Your task to perform on an android device: turn off improve location accuracy Image 0: 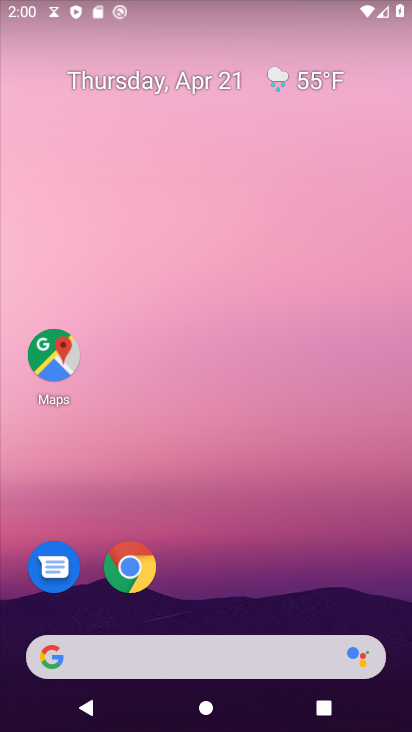
Step 0: press home button
Your task to perform on an android device: turn off improve location accuracy Image 1: 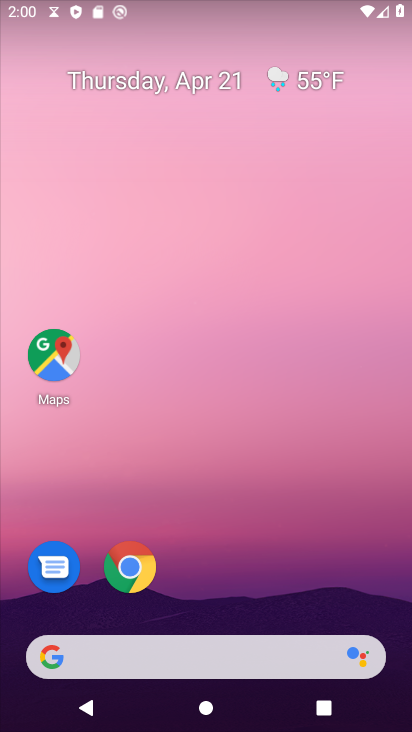
Step 1: drag from (237, 620) to (327, 261)
Your task to perform on an android device: turn off improve location accuracy Image 2: 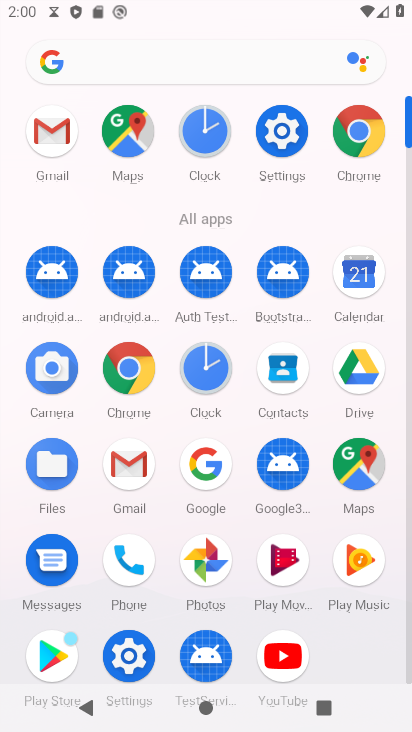
Step 2: click (279, 146)
Your task to perform on an android device: turn off improve location accuracy Image 3: 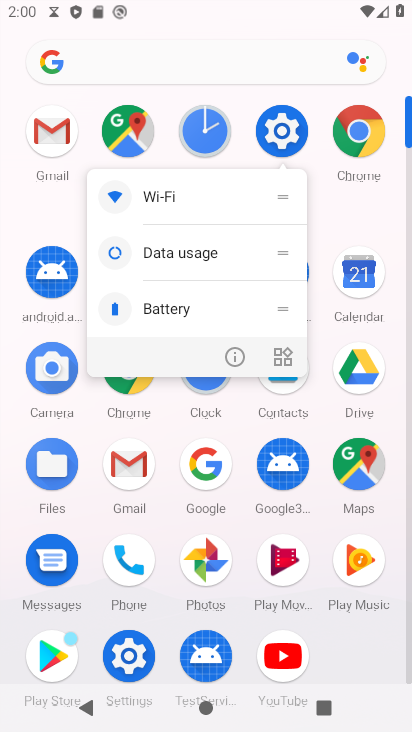
Step 3: click (284, 131)
Your task to perform on an android device: turn off improve location accuracy Image 4: 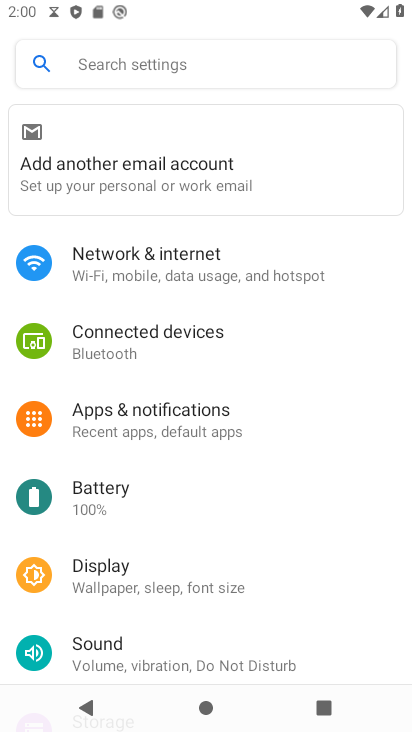
Step 4: drag from (180, 614) to (346, 143)
Your task to perform on an android device: turn off improve location accuracy Image 5: 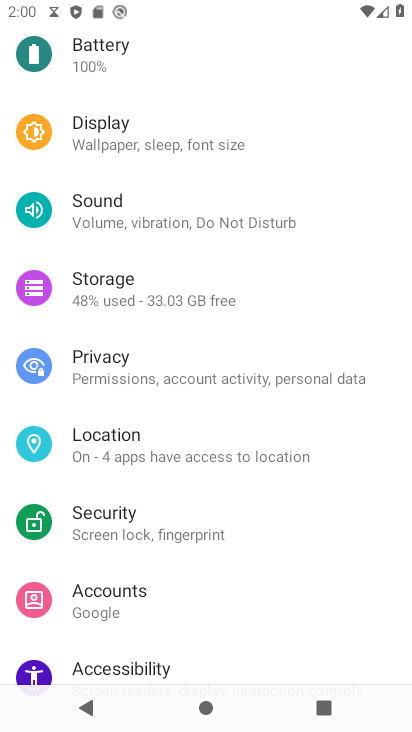
Step 5: click (160, 428)
Your task to perform on an android device: turn off improve location accuracy Image 6: 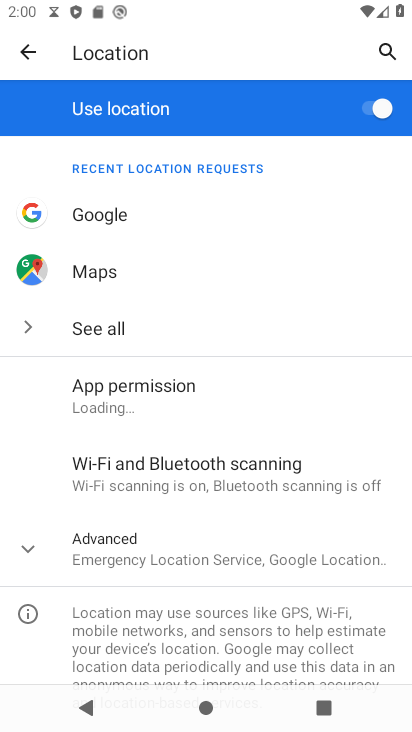
Step 6: click (122, 547)
Your task to perform on an android device: turn off improve location accuracy Image 7: 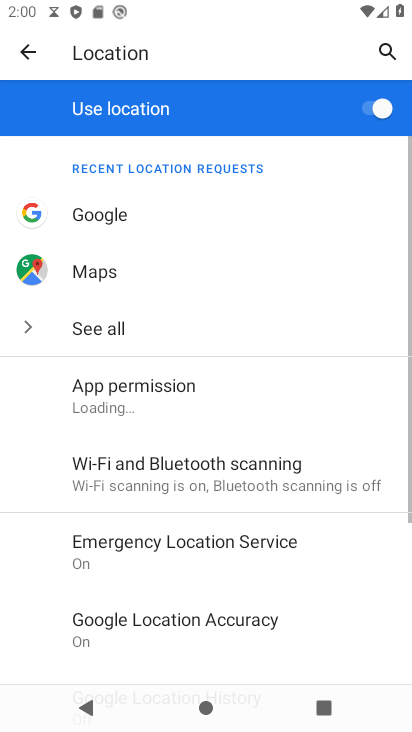
Step 7: drag from (142, 586) to (309, 260)
Your task to perform on an android device: turn off improve location accuracy Image 8: 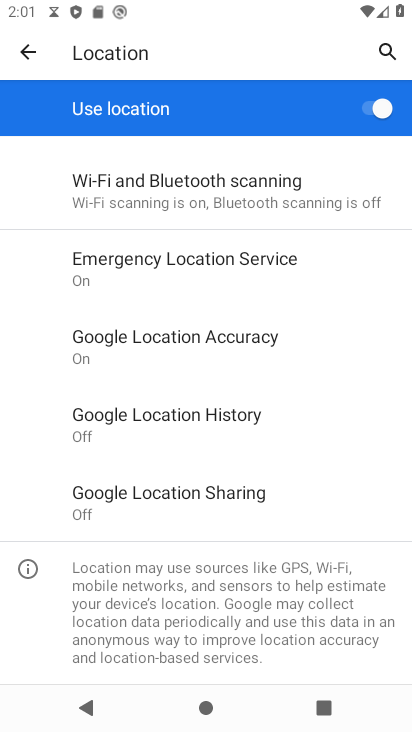
Step 8: click (208, 346)
Your task to perform on an android device: turn off improve location accuracy Image 9: 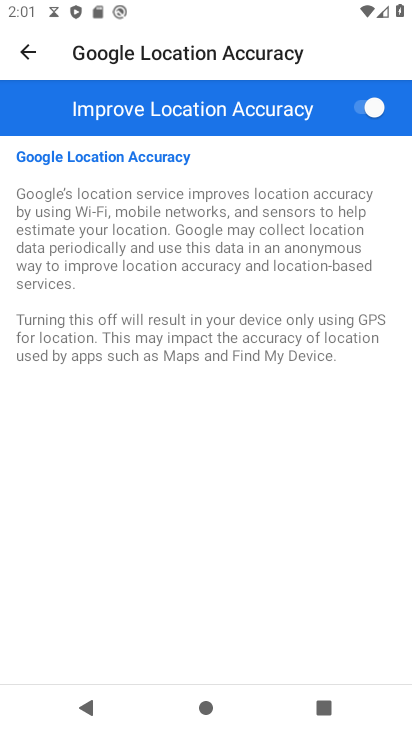
Step 9: click (361, 108)
Your task to perform on an android device: turn off improve location accuracy Image 10: 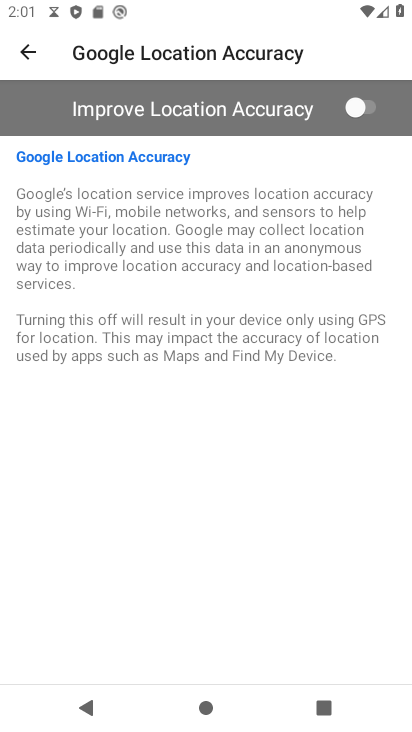
Step 10: task complete